Your task to perform on an android device: Show me recent news Image 0: 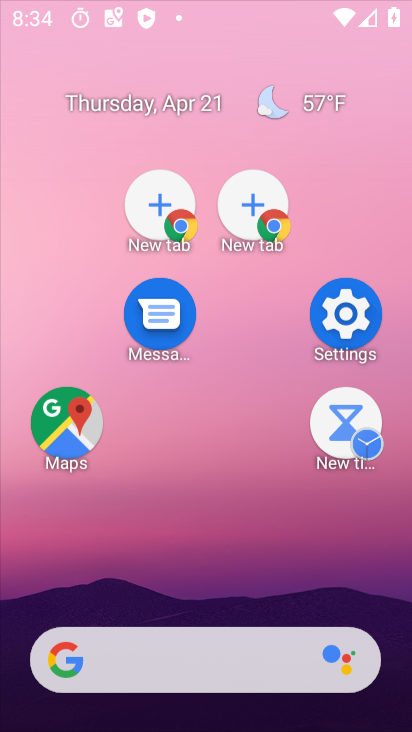
Step 0: click (163, 196)
Your task to perform on an android device: Show me recent news Image 1: 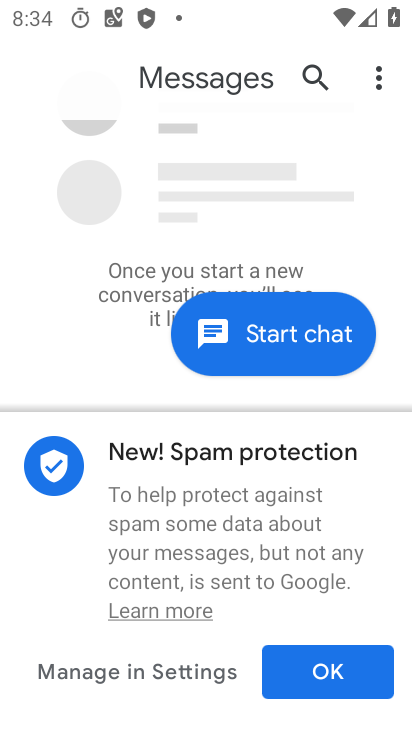
Step 1: press home button
Your task to perform on an android device: Show me recent news Image 2: 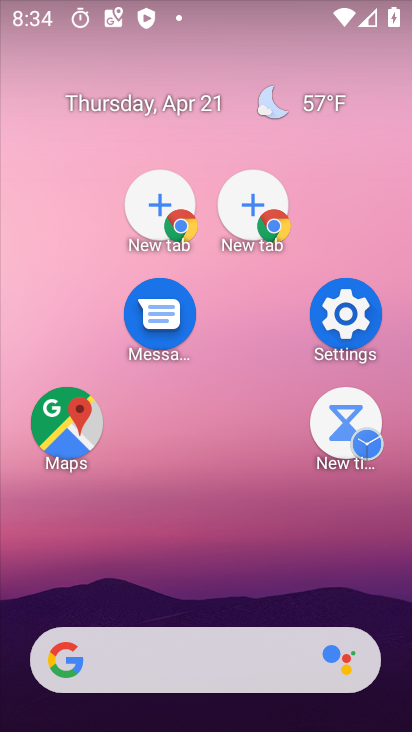
Step 2: drag from (250, 689) to (194, 8)
Your task to perform on an android device: Show me recent news Image 3: 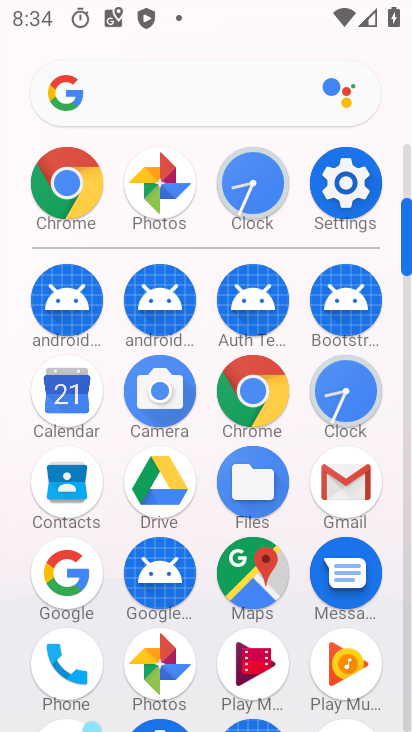
Step 3: click (159, 662)
Your task to perform on an android device: Show me recent news Image 4: 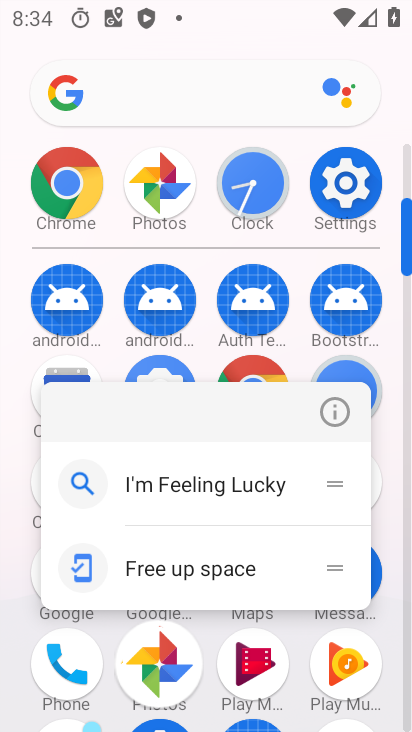
Step 4: click (154, 657)
Your task to perform on an android device: Show me recent news Image 5: 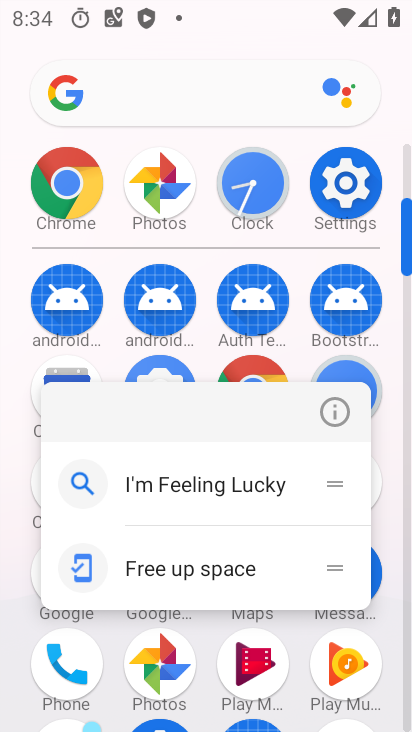
Step 5: click (163, 642)
Your task to perform on an android device: Show me recent news Image 6: 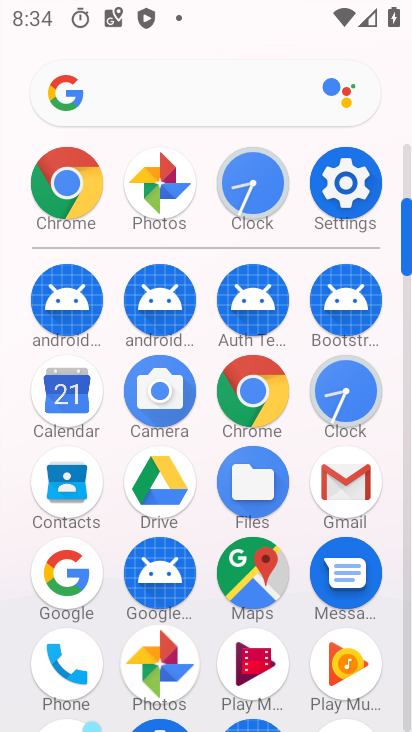
Step 6: click (162, 657)
Your task to perform on an android device: Show me recent news Image 7: 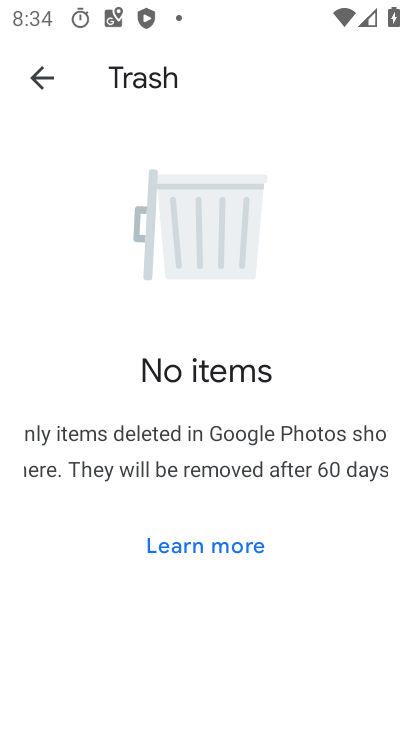
Step 7: click (44, 72)
Your task to perform on an android device: Show me recent news Image 8: 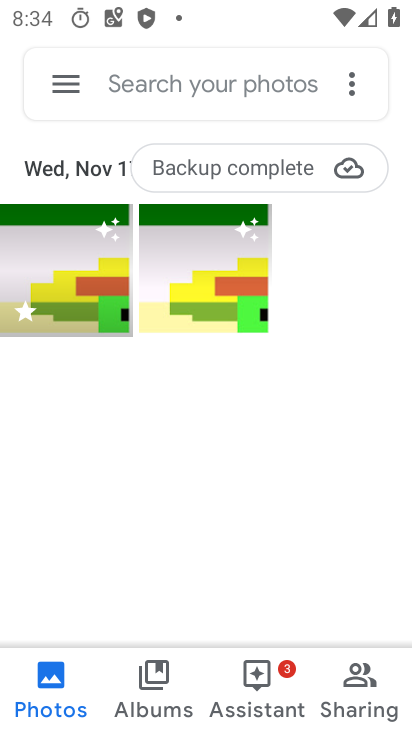
Step 8: task complete